Your task to perform on an android device: see tabs open on other devices in the chrome app Image 0: 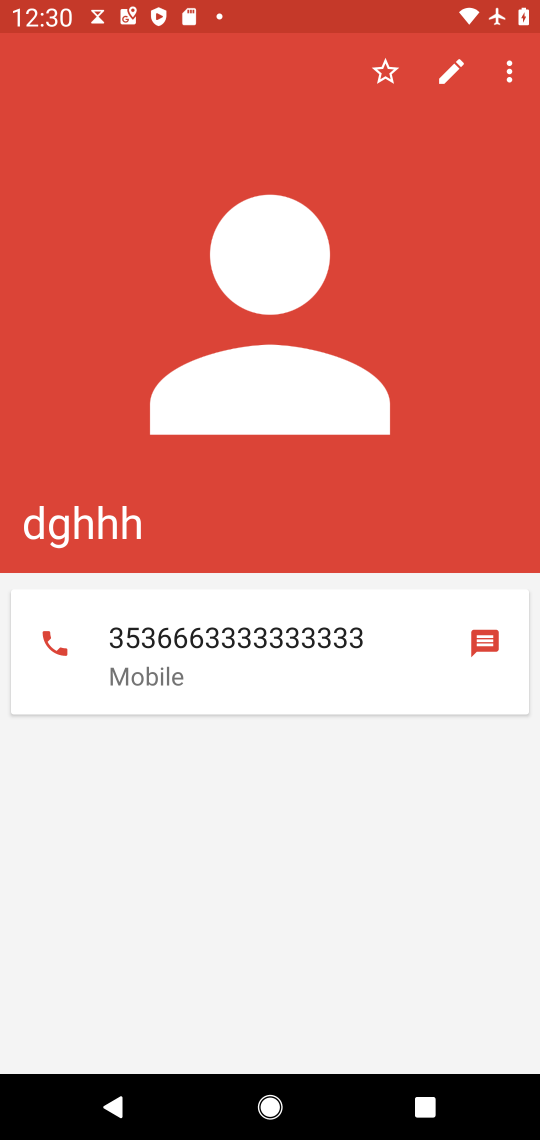
Step 0: press home button
Your task to perform on an android device: see tabs open on other devices in the chrome app Image 1: 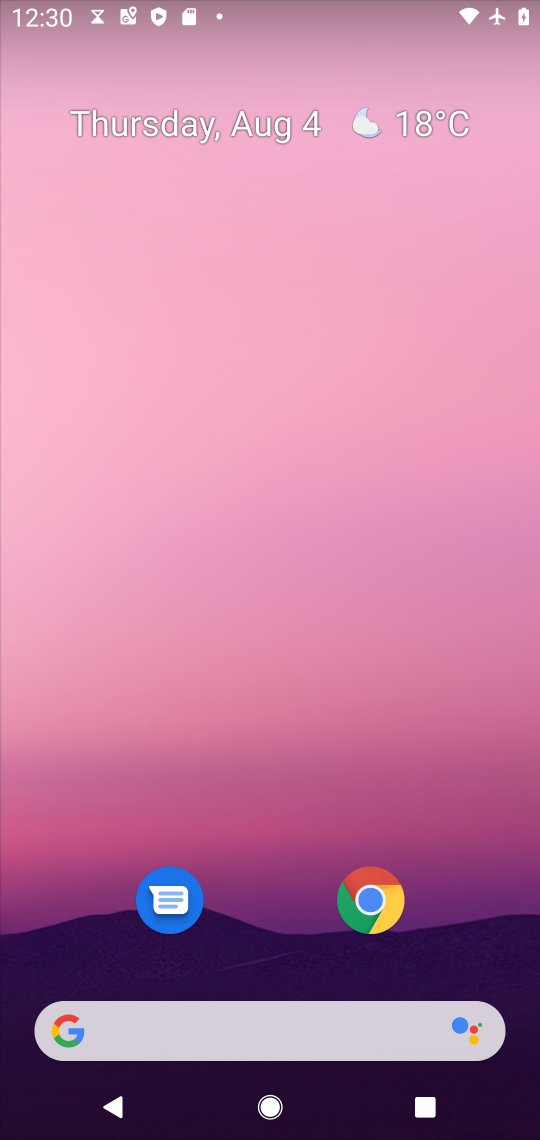
Step 1: click (375, 907)
Your task to perform on an android device: see tabs open on other devices in the chrome app Image 2: 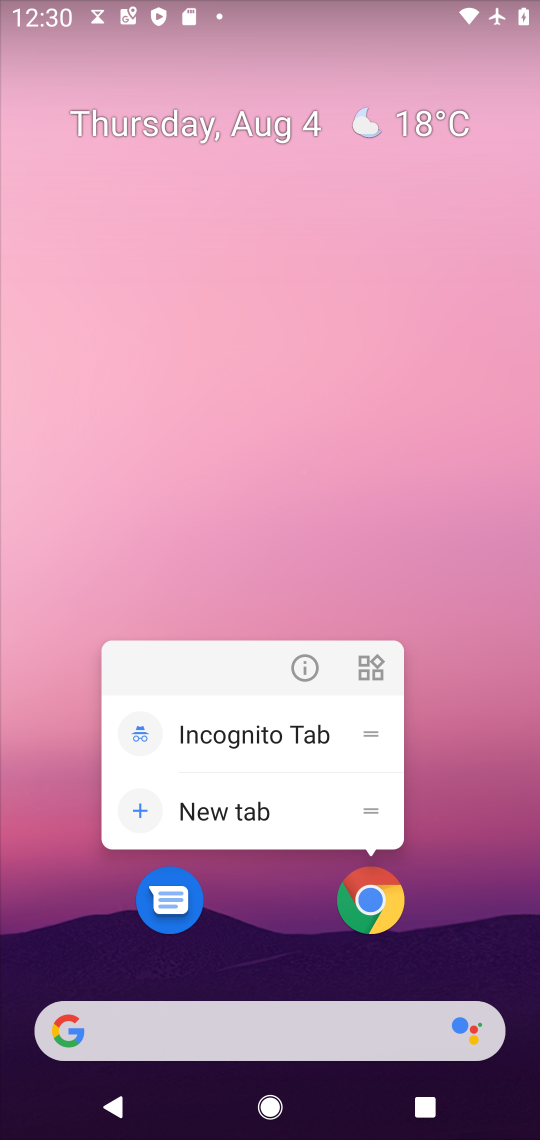
Step 2: click (376, 902)
Your task to perform on an android device: see tabs open on other devices in the chrome app Image 3: 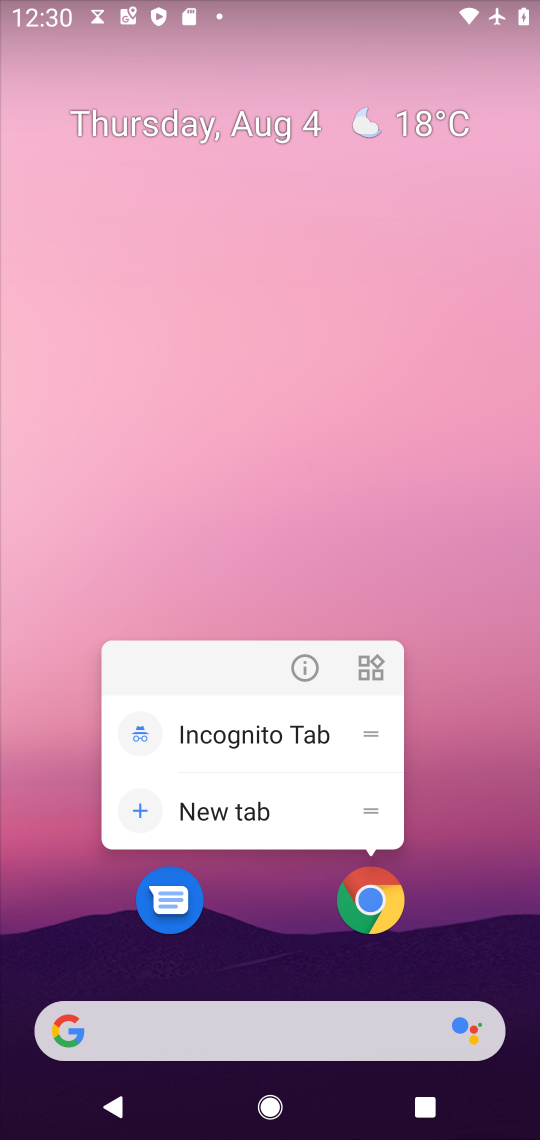
Step 3: click (370, 895)
Your task to perform on an android device: see tabs open on other devices in the chrome app Image 4: 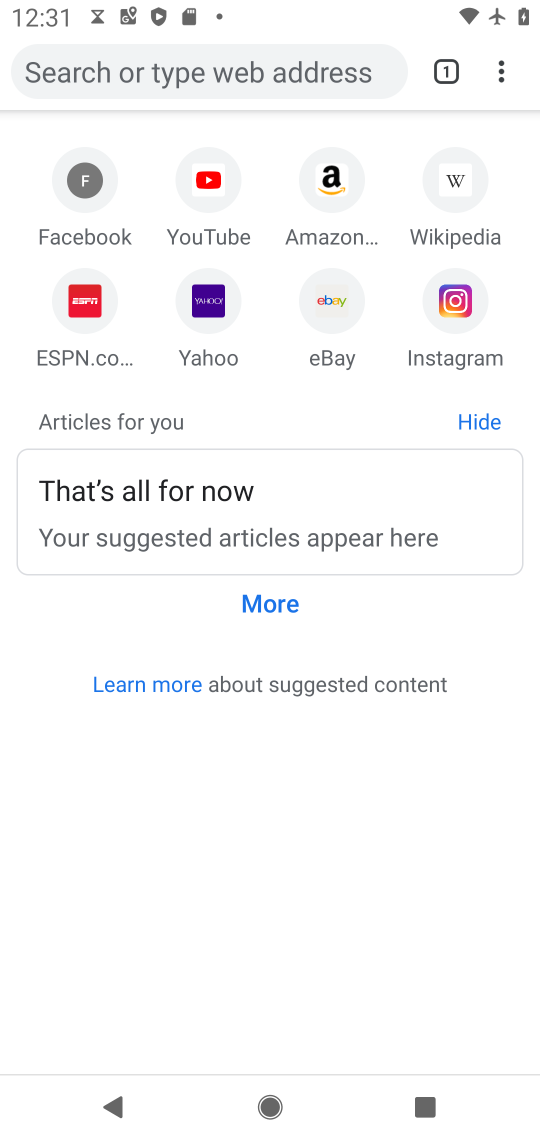
Step 4: task complete